Your task to perform on an android device: turn on improve location accuracy Image 0: 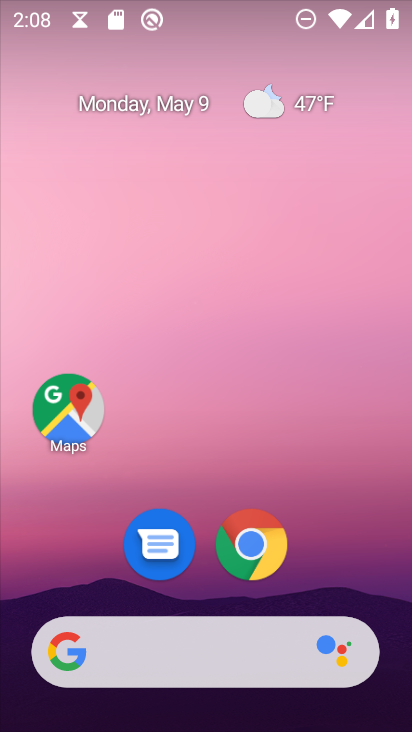
Step 0: drag from (341, 566) to (330, 151)
Your task to perform on an android device: turn on improve location accuracy Image 1: 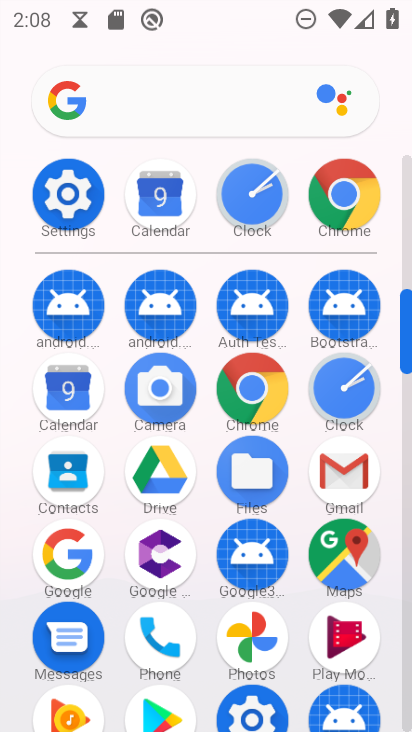
Step 1: click (58, 190)
Your task to perform on an android device: turn on improve location accuracy Image 2: 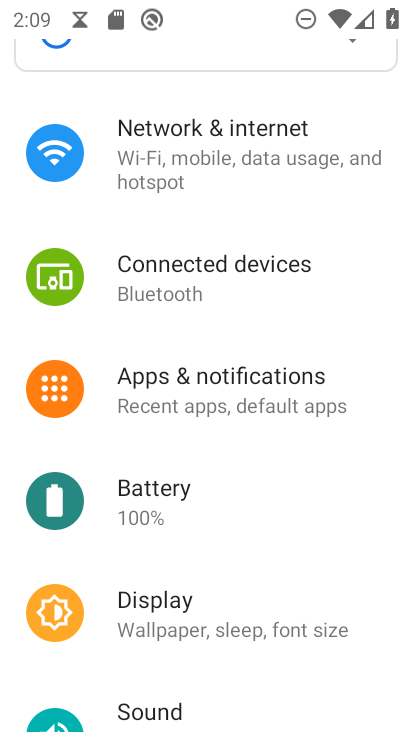
Step 2: drag from (177, 645) to (232, 353)
Your task to perform on an android device: turn on improve location accuracy Image 3: 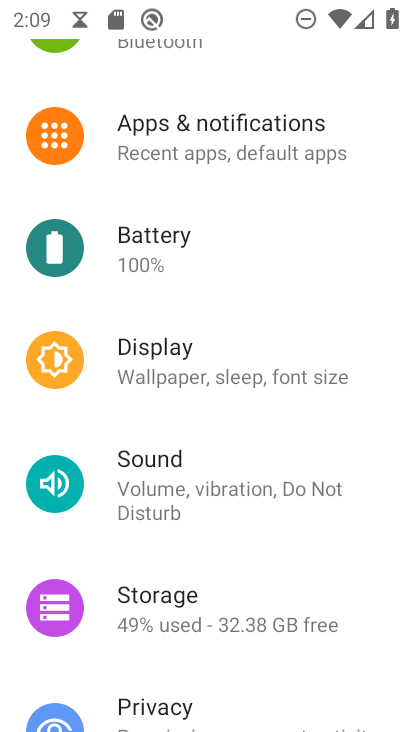
Step 3: drag from (174, 643) to (259, 288)
Your task to perform on an android device: turn on improve location accuracy Image 4: 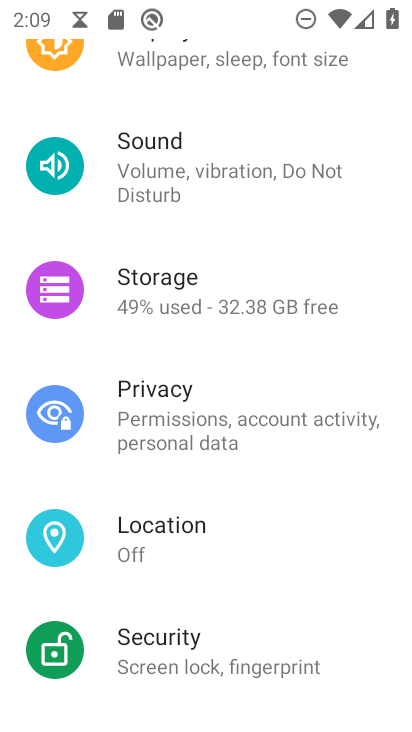
Step 4: click (219, 551)
Your task to perform on an android device: turn on improve location accuracy Image 5: 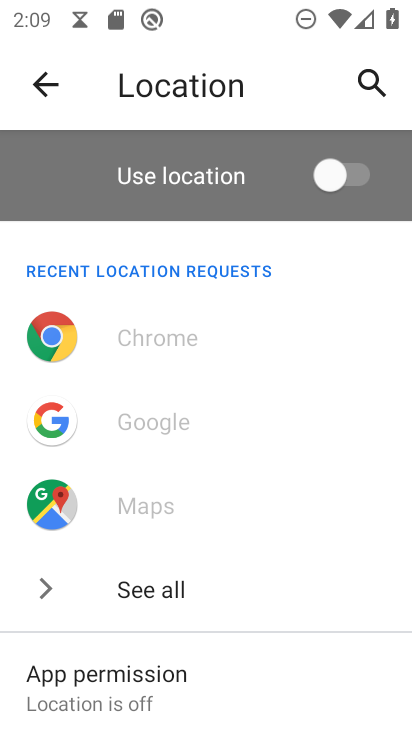
Step 5: drag from (220, 600) to (278, 294)
Your task to perform on an android device: turn on improve location accuracy Image 6: 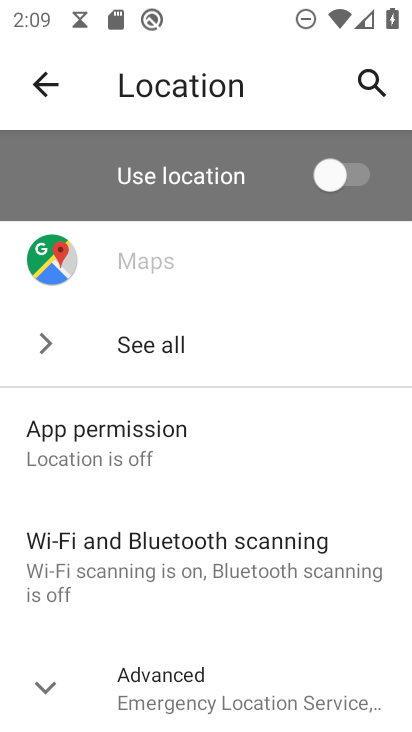
Step 6: drag from (267, 682) to (332, 318)
Your task to perform on an android device: turn on improve location accuracy Image 7: 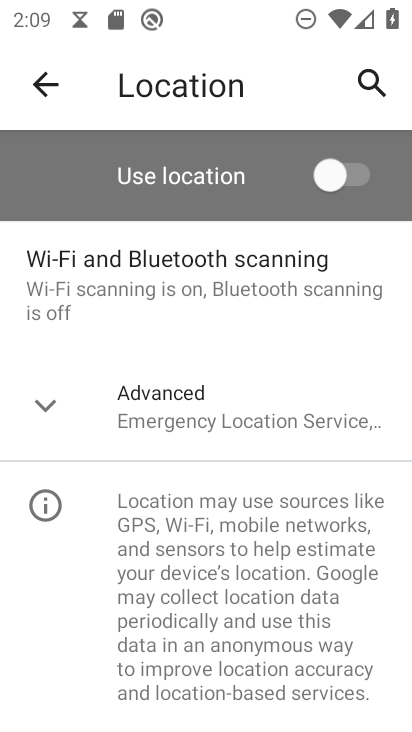
Step 7: click (212, 429)
Your task to perform on an android device: turn on improve location accuracy Image 8: 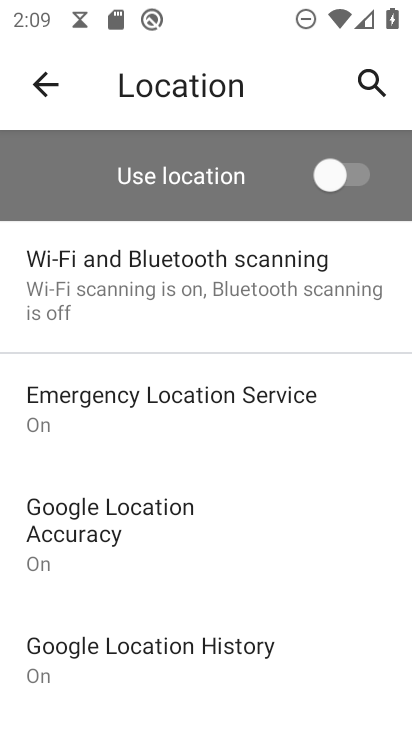
Step 8: click (115, 534)
Your task to perform on an android device: turn on improve location accuracy Image 9: 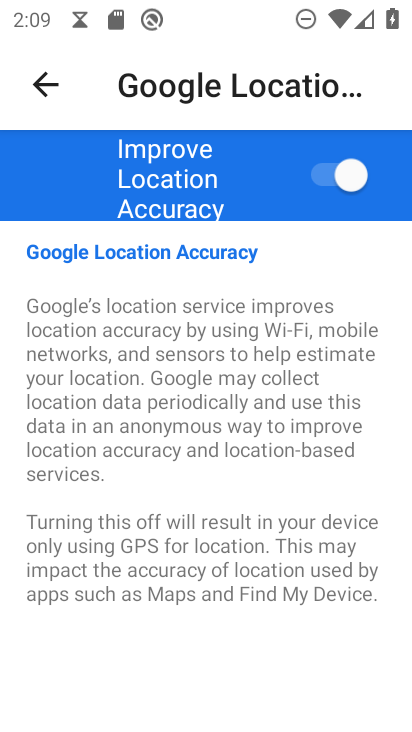
Step 9: task complete